Your task to perform on an android device: turn on bluetooth scan Image 0: 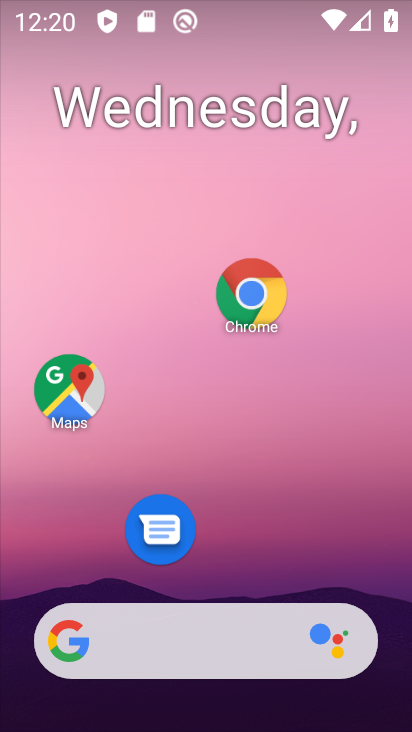
Step 0: click (379, 145)
Your task to perform on an android device: turn on bluetooth scan Image 1: 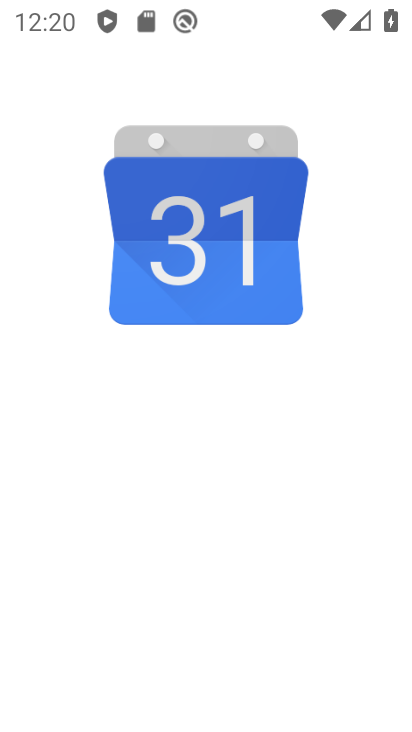
Step 1: drag from (315, 457) to (319, 238)
Your task to perform on an android device: turn on bluetooth scan Image 2: 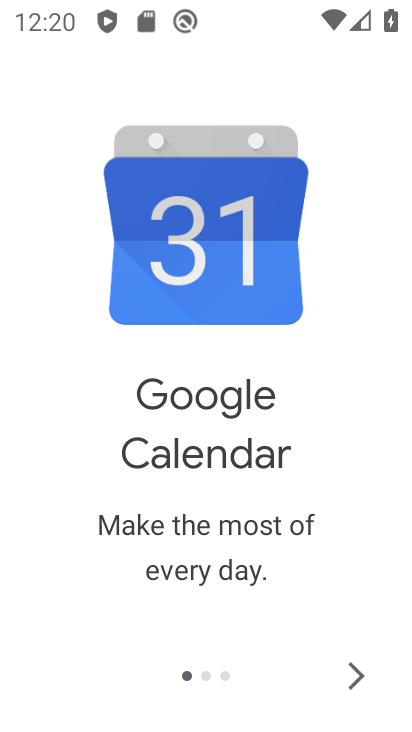
Step 2: press home button
Your task to perform on an android device: turn on bluetooth scan Image 3: 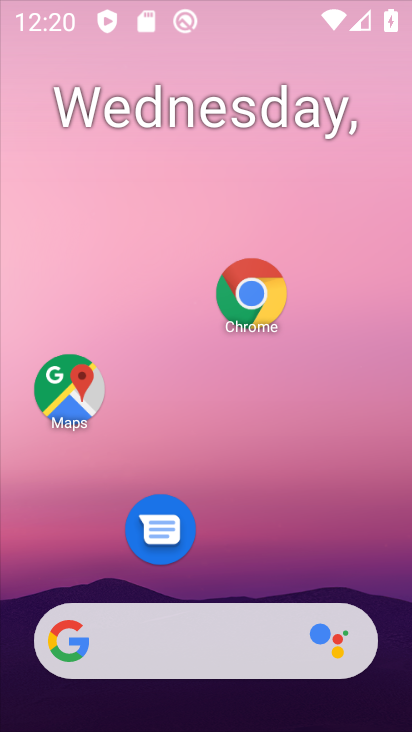
Step 3: drag from (277, 627) to (293, 259)
Your task to perform on an android device: turn on bluetooth scan Image 4: 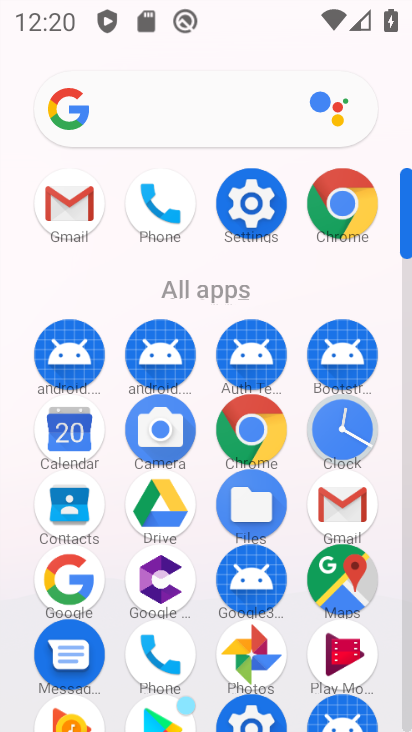
Step 4: click (242, 208)
Your task to perform on an android device: turn on bluetooth scan Image 5: 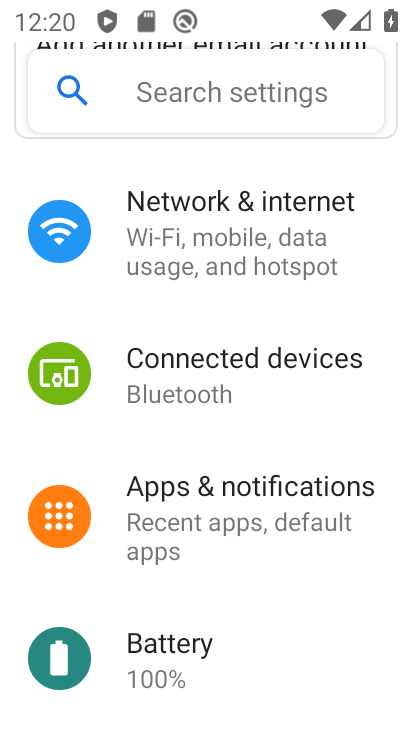
Step 5: click (213, 352)
Your task to perform on an android device: turn on bluetooth scan Image 6: 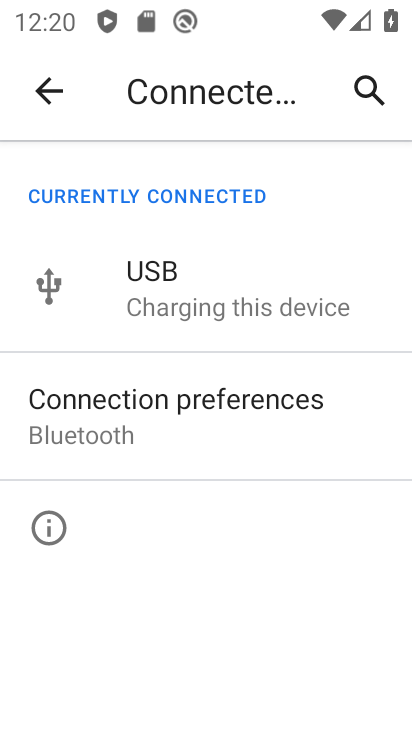
Step 6: click (204, 384)
Your task to perform on an android device: turn on bluetooth scan Image 7: 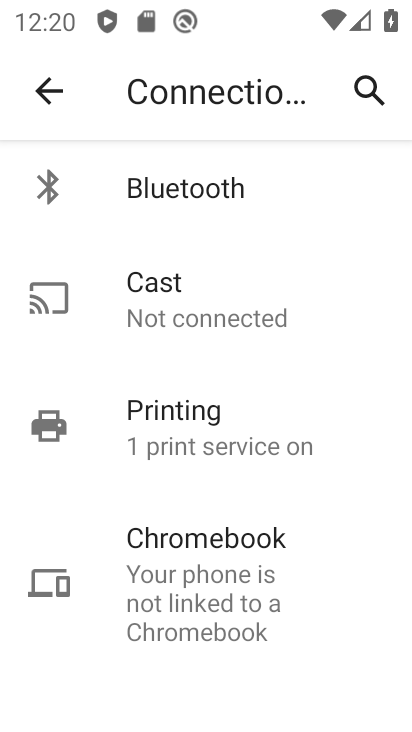
Step 7: click (272, 191)
Your task to perform on an android device: turn on bluetooth scan Image 8: 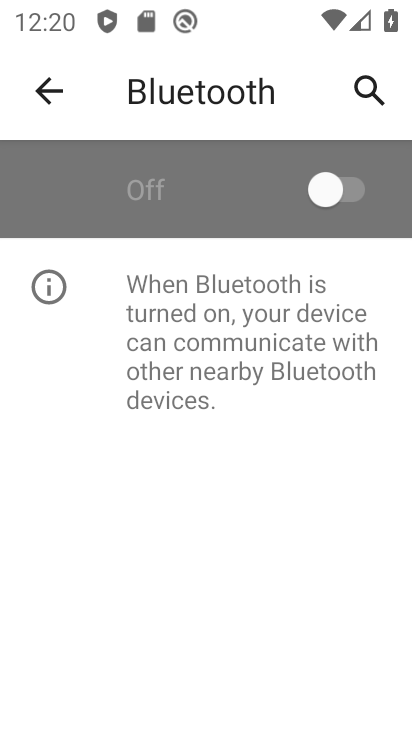
Step 8: click (348, 185)
Your task to perform on an android device: turn on bluetooth scan Image 9: 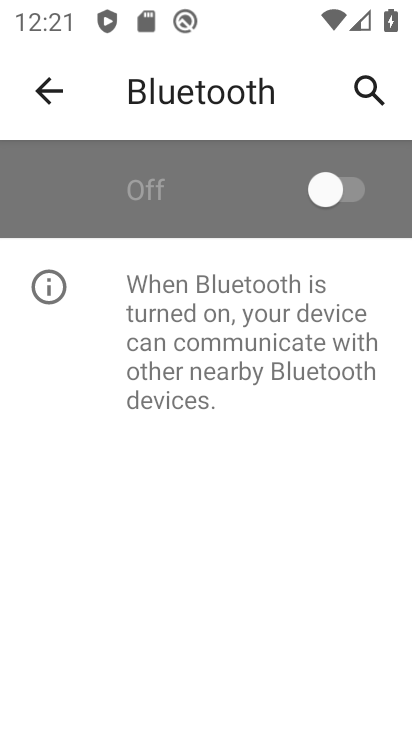
Step 9: click (336, 182)
Your task to perform on an android device: turn on bluetooth scan Image 10: 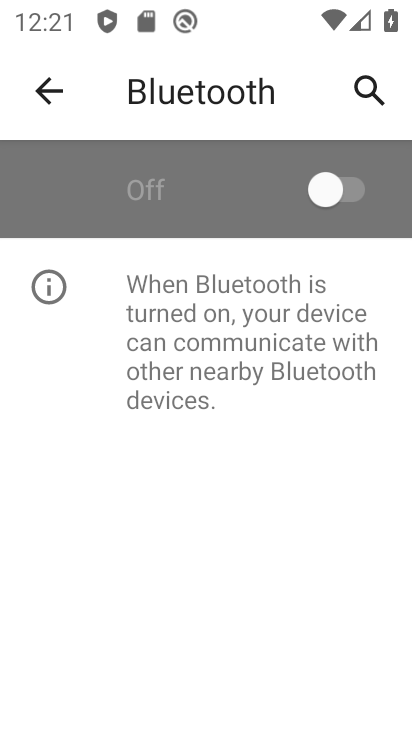
Step 10: task complete